Your task to perform on an android device: Toggle the flashlight Image 0: 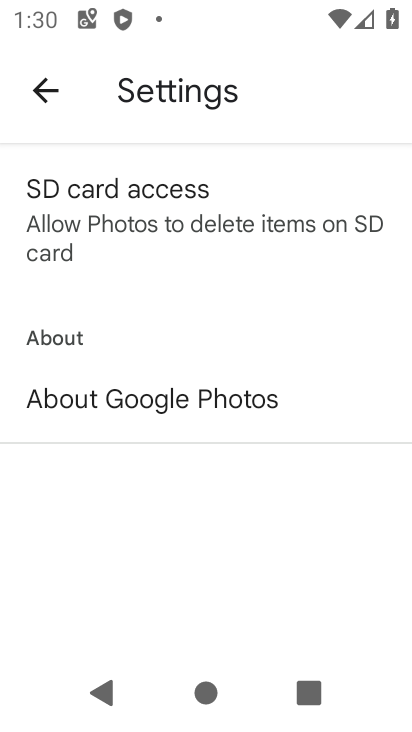
Step 0: press home button
Your task to perform on an android device: Toggle the flashlight Image 1: 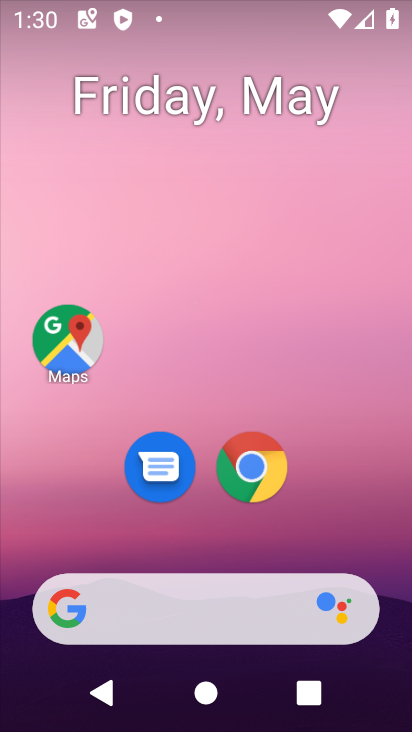
Step 1: drag from (337, 520) to (318, 111)
Your task to perform on an android device: Toggle the flashlight Image 2: 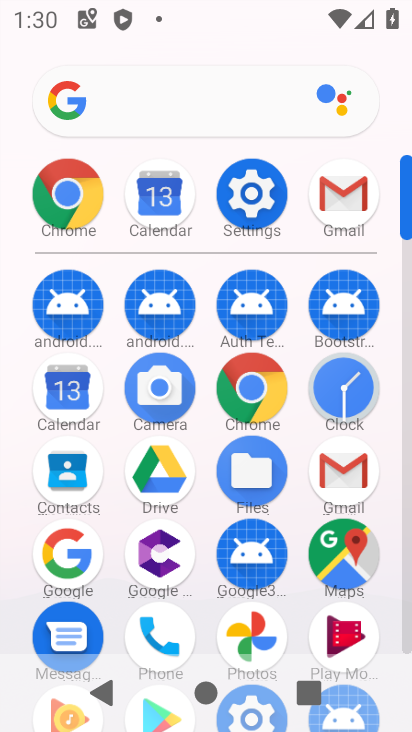
Step 2: click (248, 195)
Your task to perform on an android device: Toggle the flashlight Image 3: 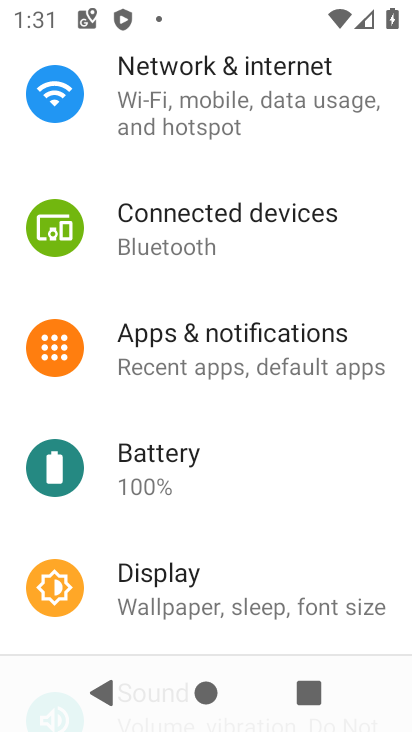
Step 3: click (188, 588)
Your task to perform on an android device: Toggle the flashlight Image 4: 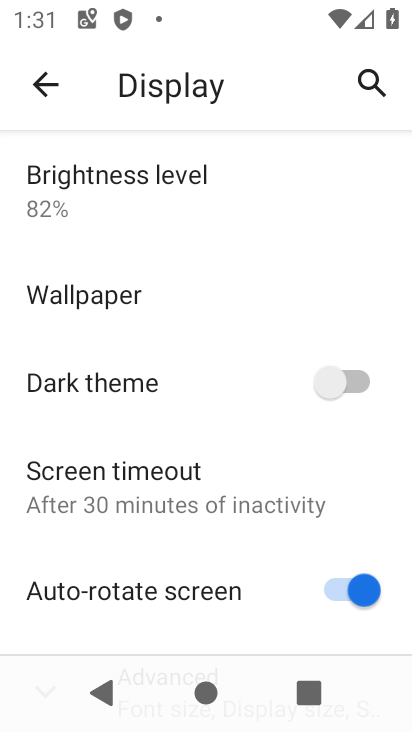
Step 4: task complete